Your task to perform on an android device: Check the weather Image 0: 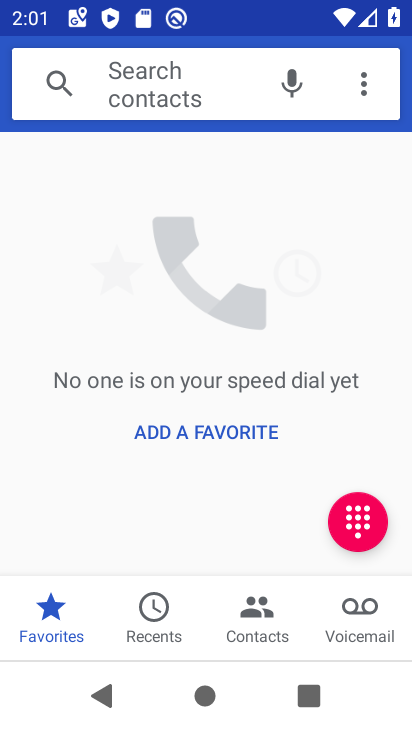
Step 0: press back button
Your task to perform on an android device: Check the weather Image 1: 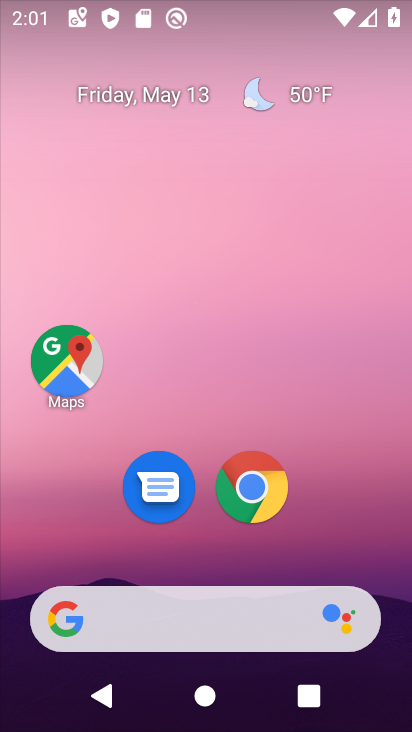
Step 1: click (306, 94)
Your task to perform on an android device: Check the weather Image 2: 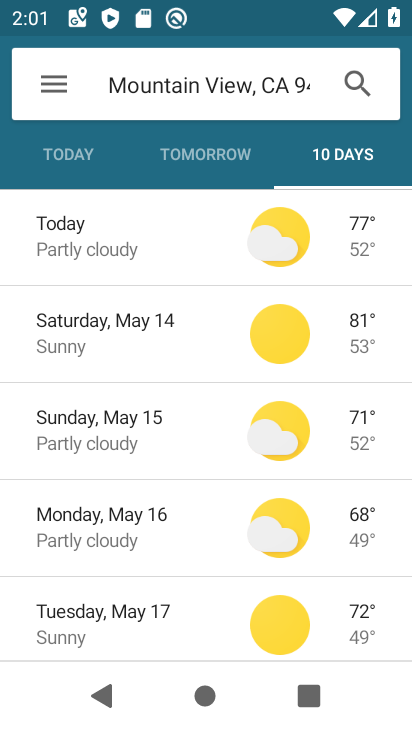
Step 2: click (93, 166)
Your task to perform on an android device: Check the weather Image 3: 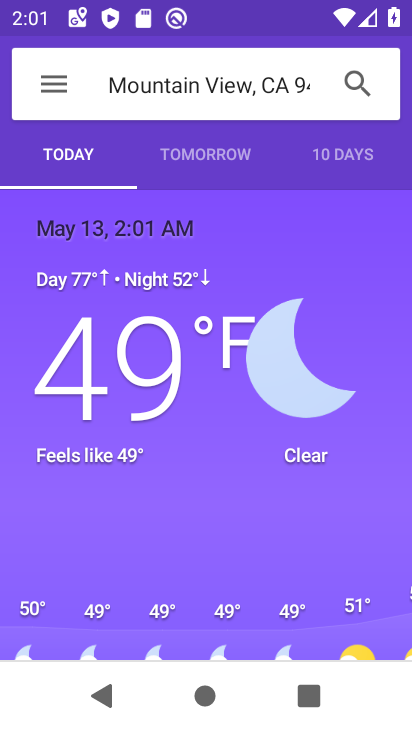
Step 3: task complete